Your task to perform on an android device: open sync settings in chrome Image 0: 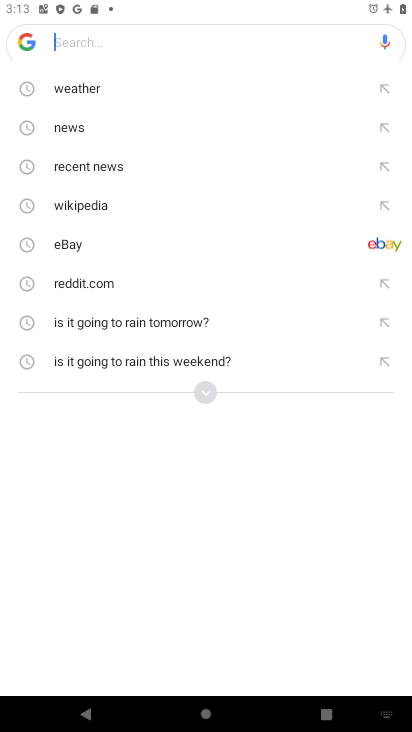
Step 0: press home button
Your task to perform on an android device: open sync settings in chrome Image 1: 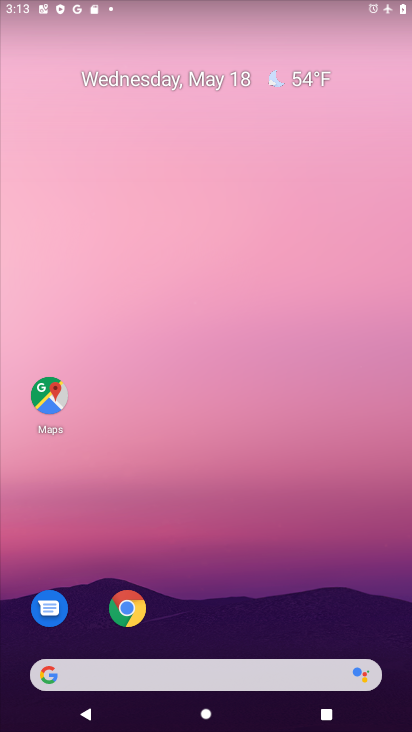
Step 1: click (128, 613)
Your task to perform on an android device: open sync settings in chrome Image 2: 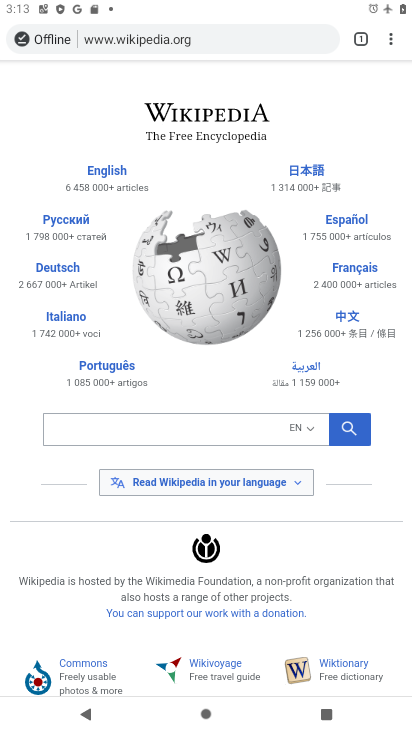
Step 2: click (390, 45)
Your task to perform on an android device: open sync settings in chrome Image 3: 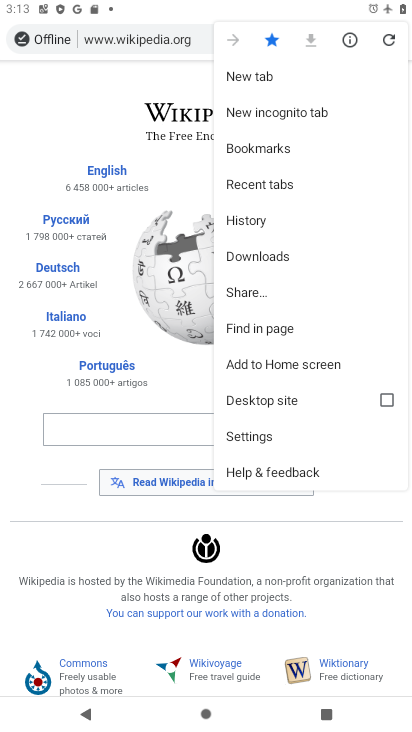
Step 3: click (268, 433)
Your task to perform on an android device: open sync settings in chrome Image 4: 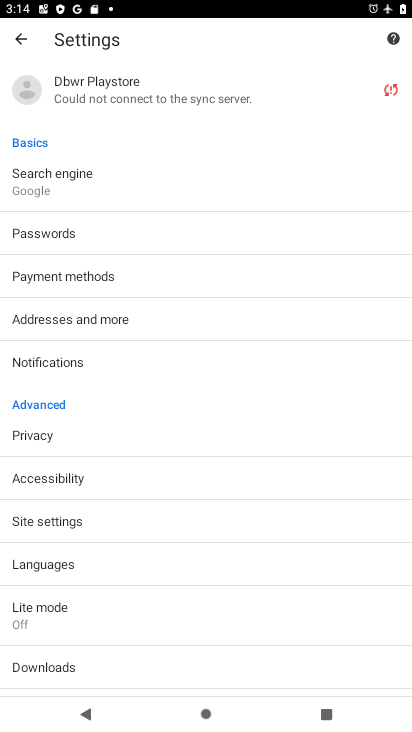
Step 4: click (127, 96)
Your task to perform on an android device: open sync settings in chrome Image 5: 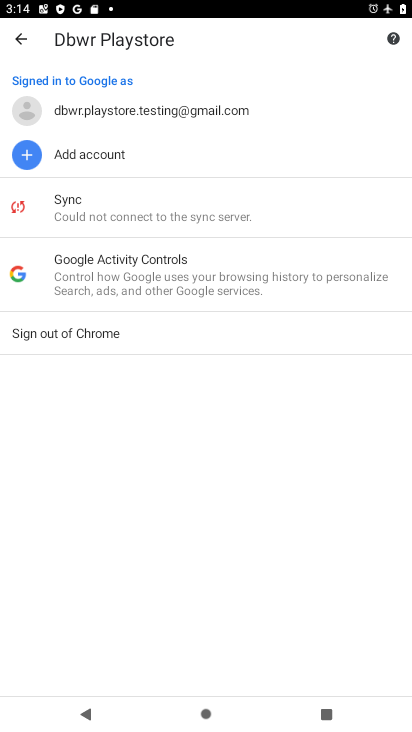
Step 5: click (82, 197)
Your task to perform on an android device: open sync settings in chrome Image 6: 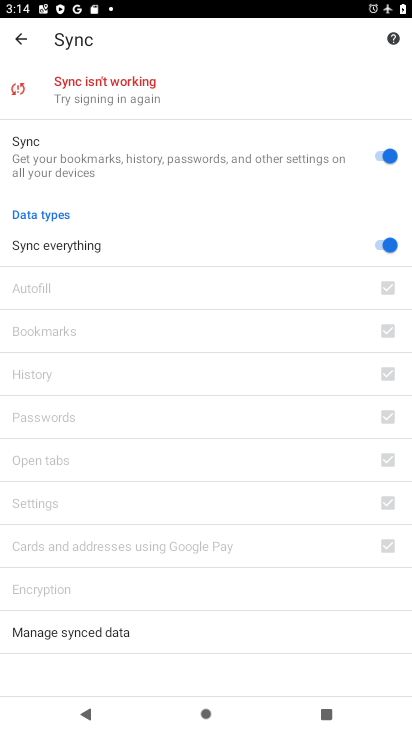
Step 6: task complete